Your task to perform on an android device: check out phone information Image 0: 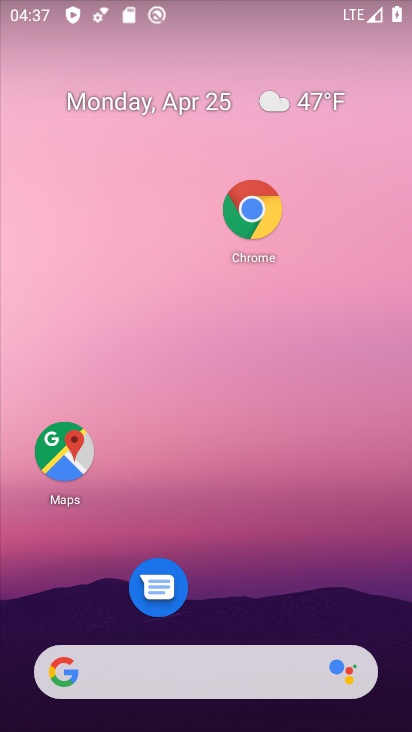
Step 0: drag from (319, 574) to (319, 131)
Your task to perform on an android device: check out phone information Image 1: 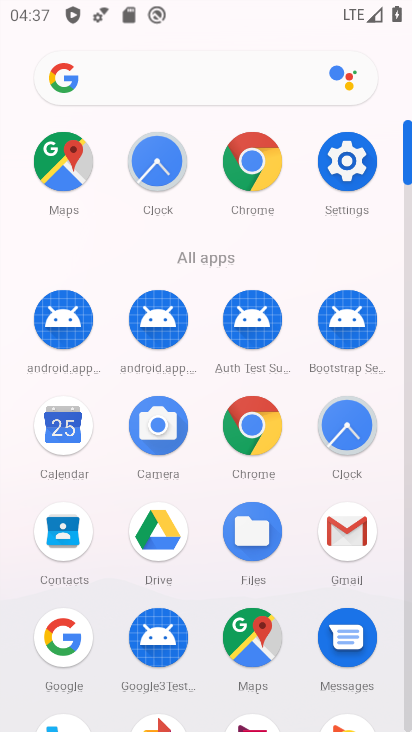
Step 1: click (359, 167)
Your task to perform on an android device: check out phone information Image 2: 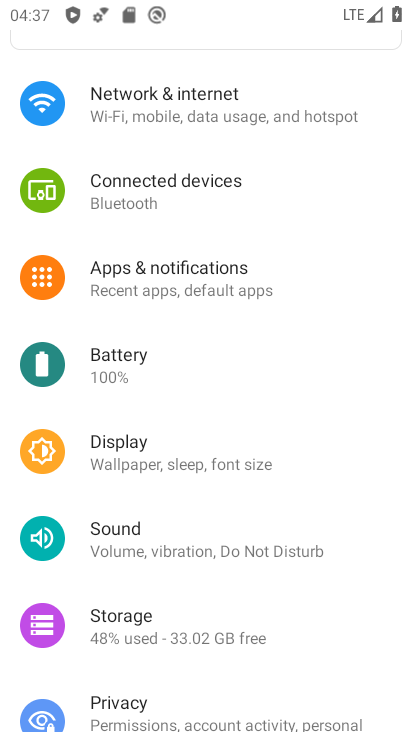
Step 2: drag from (258, 658) to (331, 167)
Your task to perform on an android device: check out phone information Image 3: 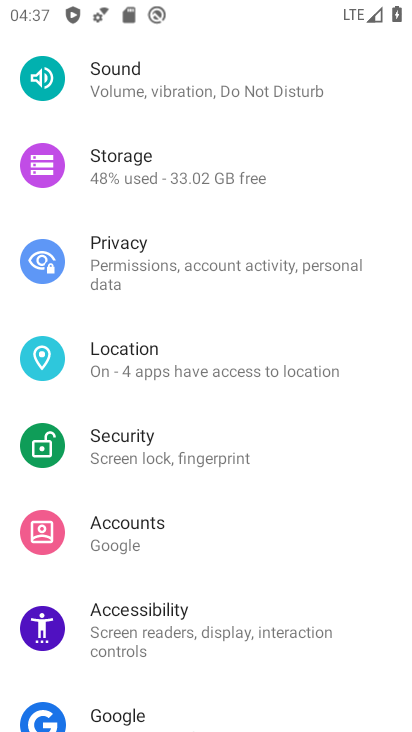
Step 3: drag from (332, 677) to (284, 315)
Your task to perform on an android device: check out phone information Image 4: 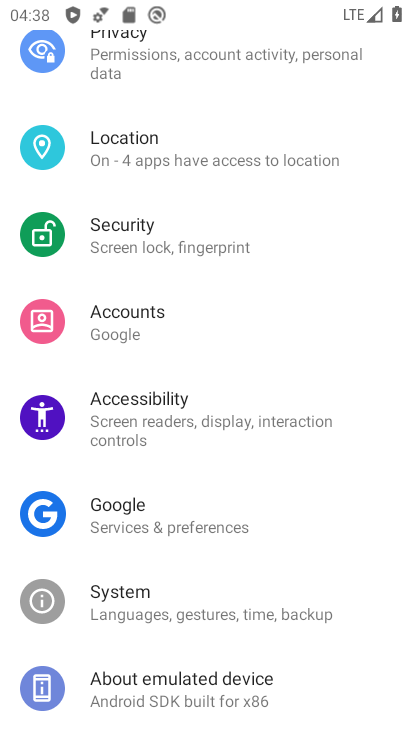
Step 4: click (233, 682)
Your task to perform on an android device: check out phone information Image 5: 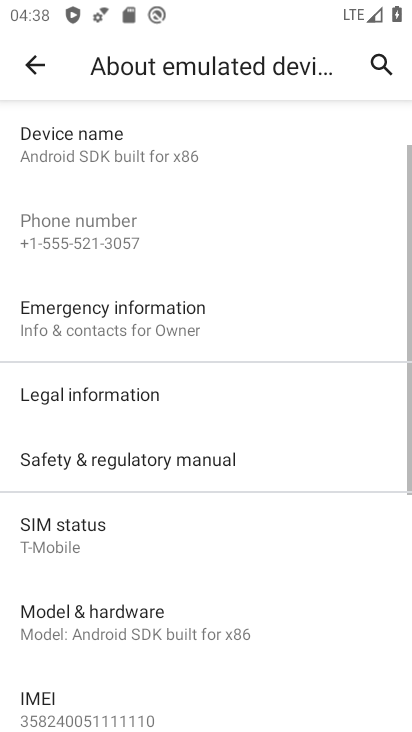
Step 5: task complete